Your task to perform on an android device: open chrome and create a bookmark for the current page Image 0: 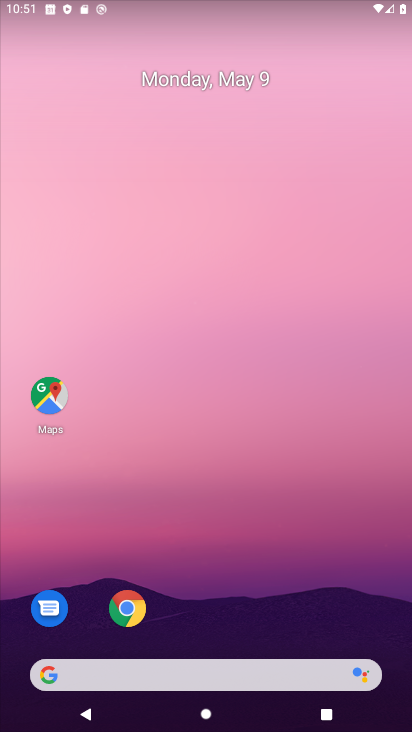
Step 0: click (130, 608)
Your task to perform on an android device: open chrome and create a bookmark for the current page Image 1: 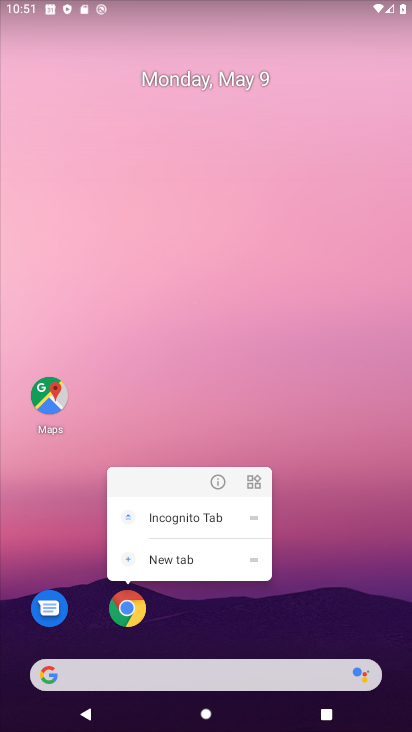
Step 1: click (133, 610)
Your task to perform on an android device: open chrome and create a bookmark for the current page Image 2: 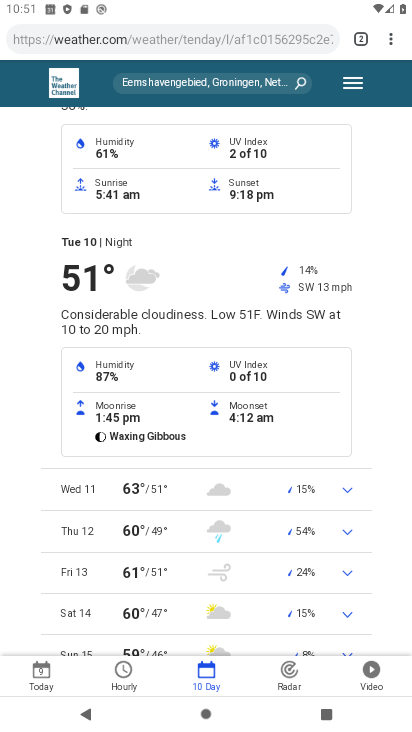
Step 2: task complete